Your task to perform on an android device: set an alarm Image 0: 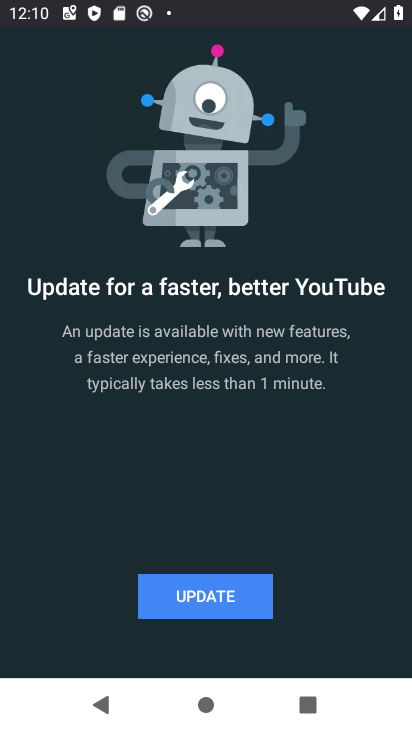
Step 0: press home button
Your task to perform on an android device: set an alarm Image 1: 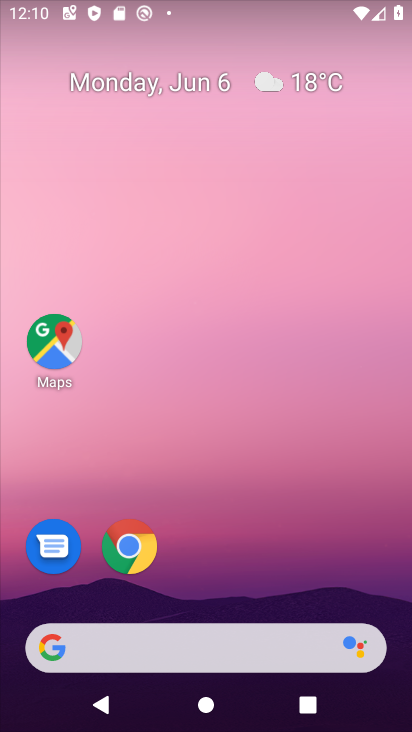
Step 1: drag from (293, 582) to (263, 85)
Your task to perform on an android device: set an alarm Image 2: 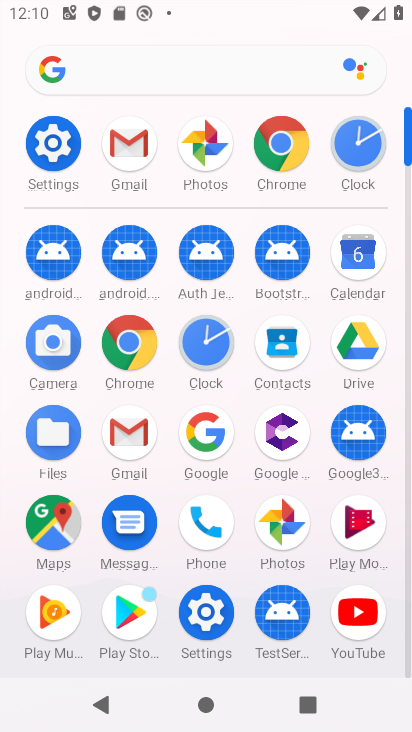
Step 2: click (355, 136)
Your task to perform on an android device: set an alarm Image 3: 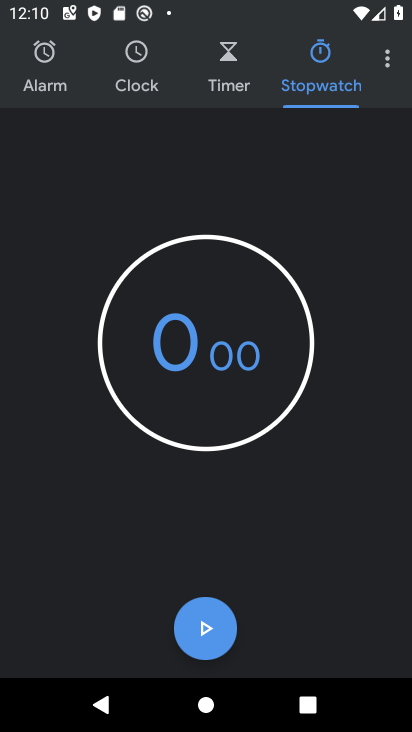
Step 3: click (49, 64)
Your task to perform on an android device: set an alarm Image 4: 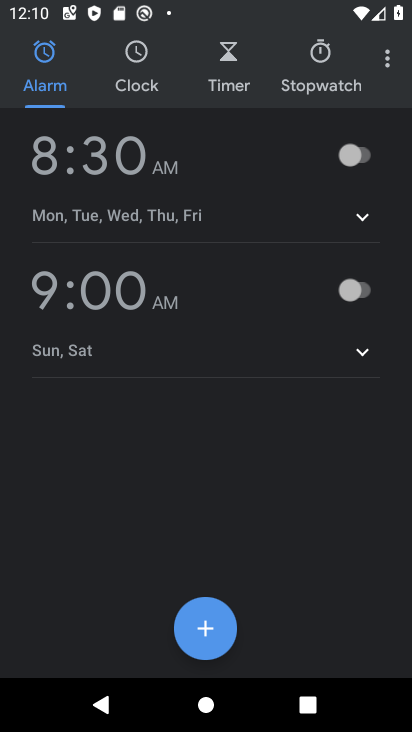
Step 4: task complete